Your task to perform on an android device: Go to eBay Image 0: 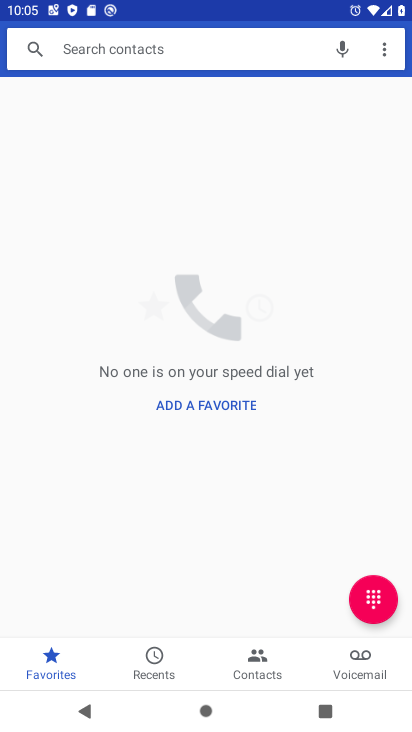
Step 0: press back button
Your task to perform on an android device: Go to eBay Image 1: 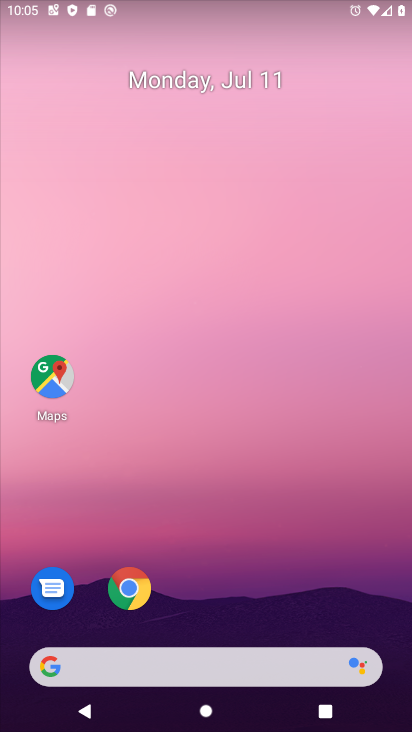
Step 1: press back button
Your task to perform on an android device: Go to eBay Image 2: 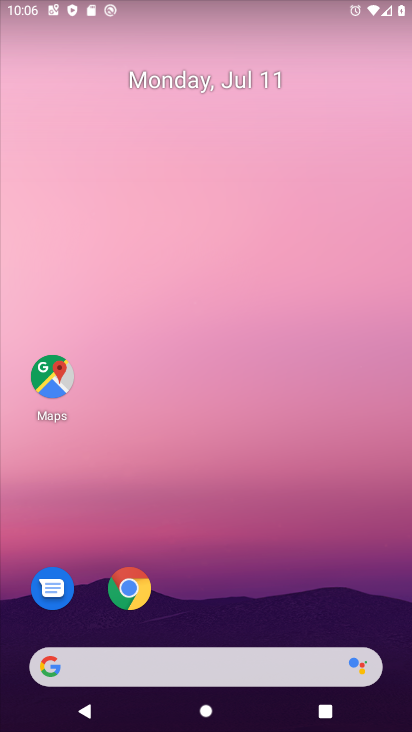
Step 2: click (119, 596)
Your task to perform on an android device: Go to eBay Image 3: 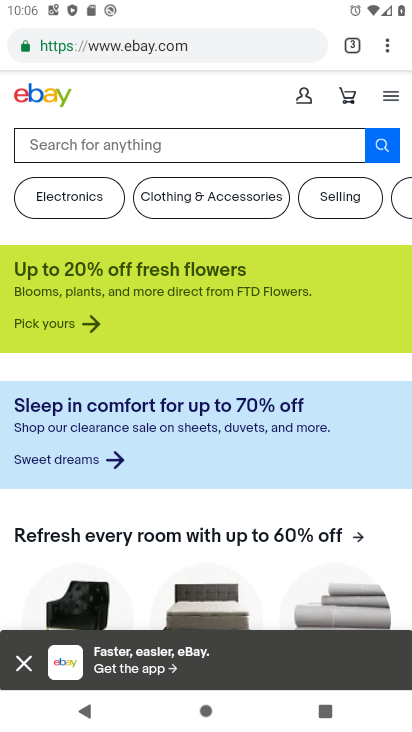
Step 3: task complete